Your task to perform on an android device: Open network settings Image 0: 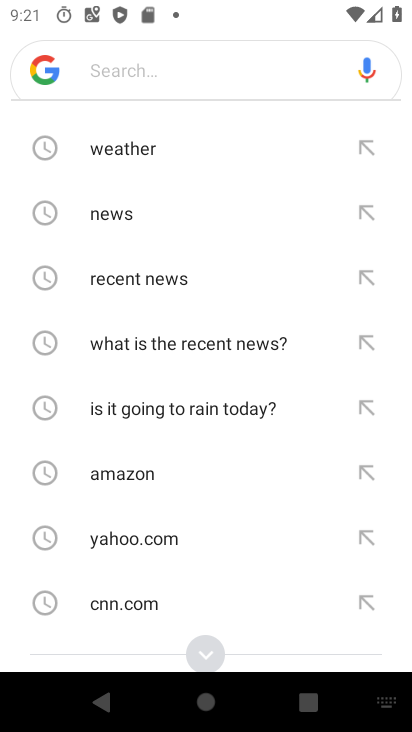
Step 0: press home button
Your task to perform on an android device: Open network settings Image 1: 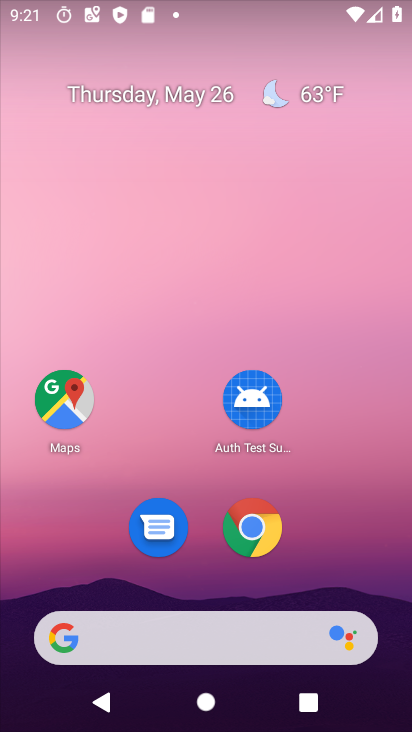
Step 1: drag from (357, 511) to (290, 78)
Your task to perform on an android device: Open network settings Image 2: 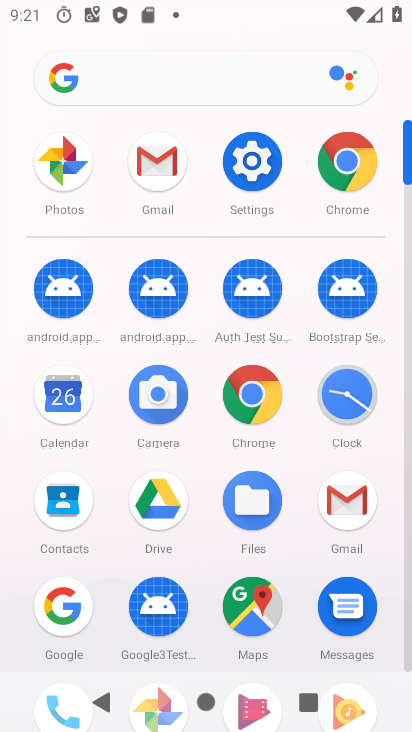
Step 2: click (244, 145)
Your task to perform on an android device: Open network settings Image 3: 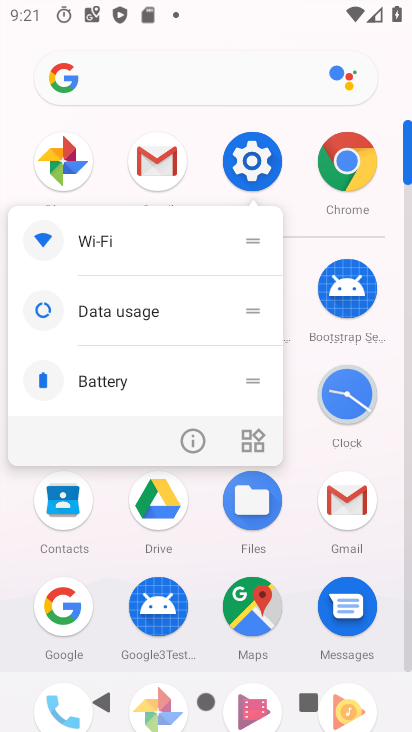
Step 3: click (244, 144)
Your task to perform on an android device: Open network settings Image 4: 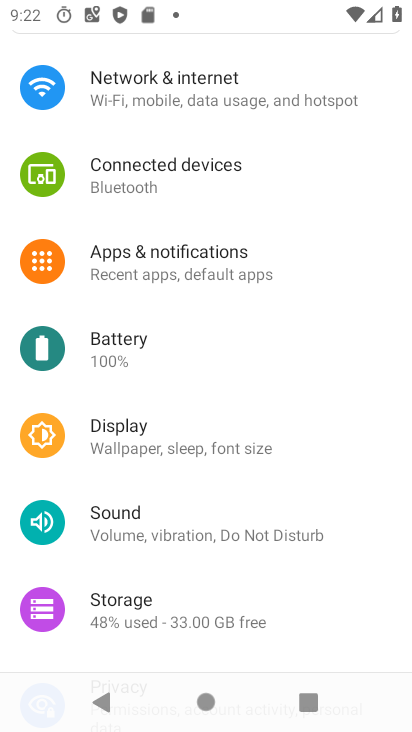
Step 4: click (173, 80)
Your task to perform on an android device: Open network settings Image 5: 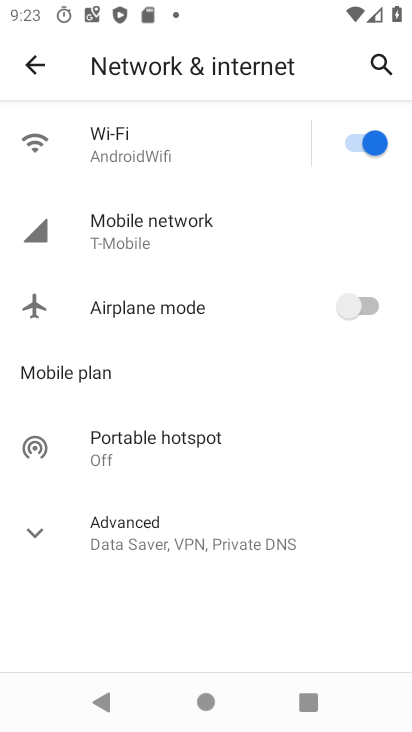
Step 5: task complete